Your task to perform on an android device: open a bookmark in the chrome app Image 0: 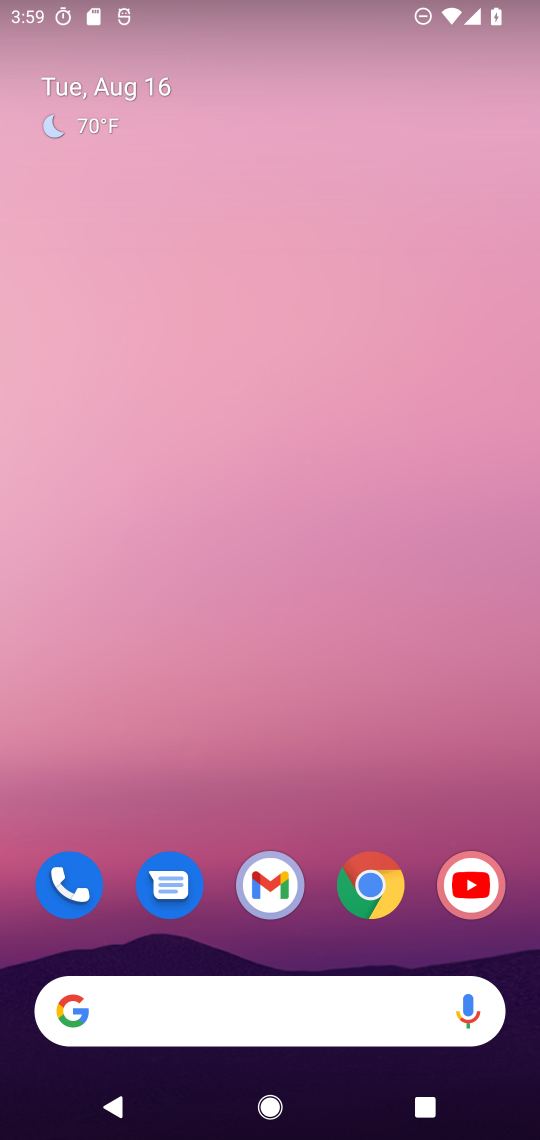
Step 0: drag from (209, 913) to (242, 411)
Your task to perform on an android device: open a bookmark in the chrome app Image 1: 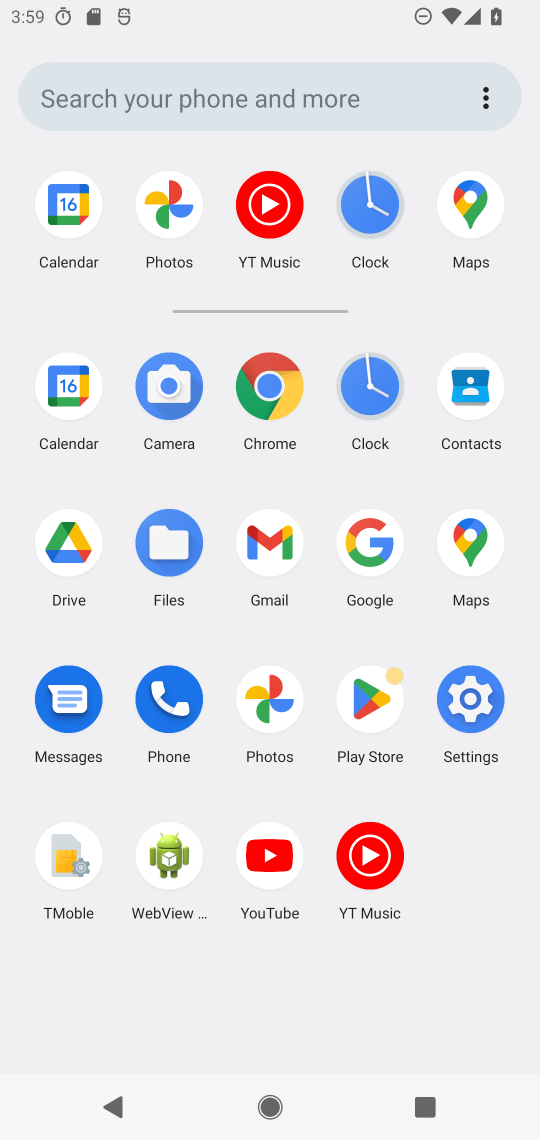
Step 1: click (260, 361)
Your task to perform on an android device: open a bookmark in the chrome app Image 2: 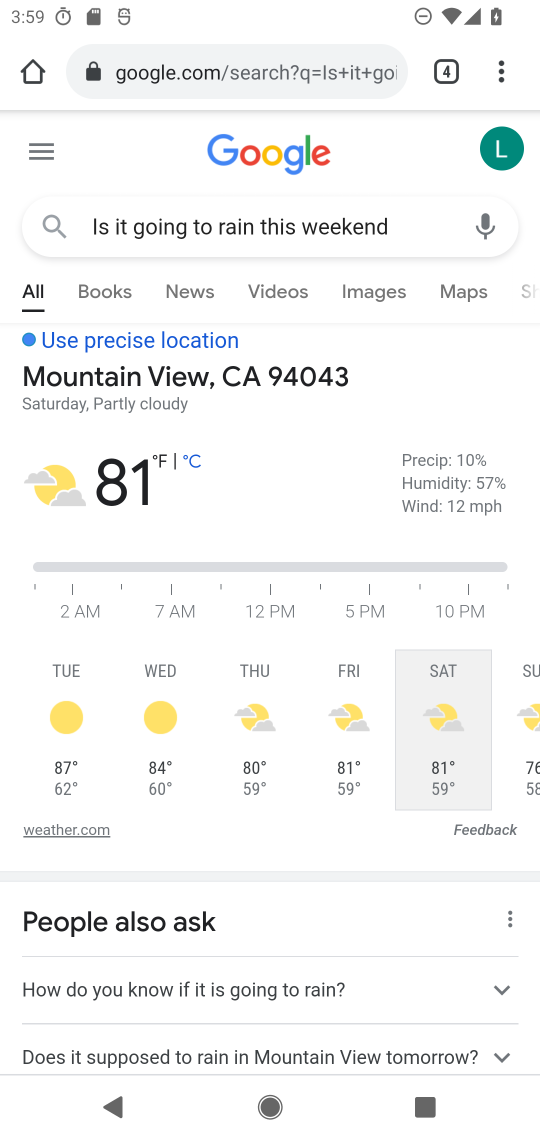
Step 2: click (521, 55)
Your task to perform on an android device: open a bookmark in the chrome app Image 3: 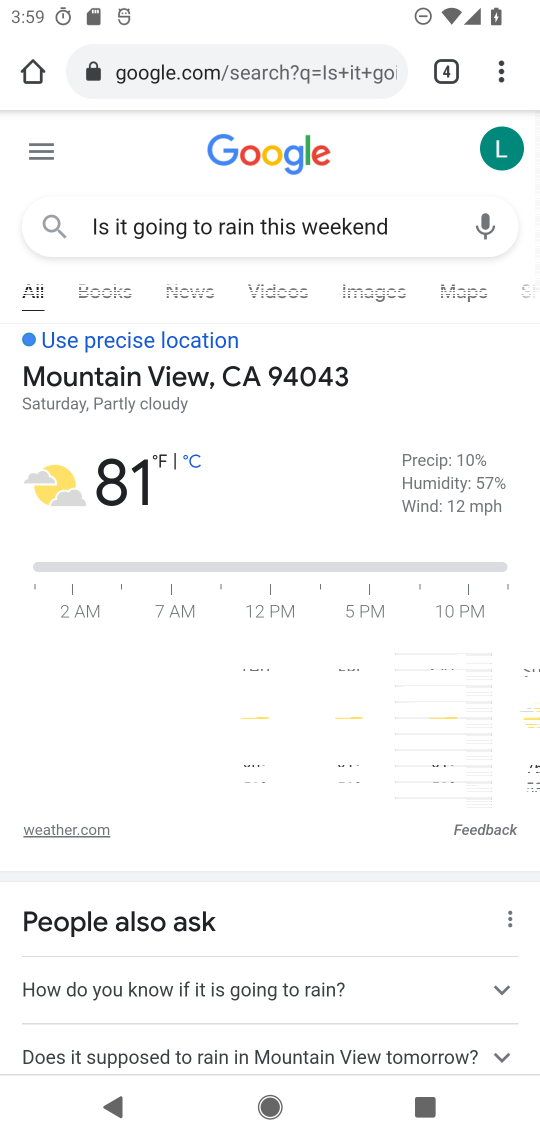
Step 3: click (512, 58)
Your task to perform on an android device: open a bookmark in the chrome app Image 4: 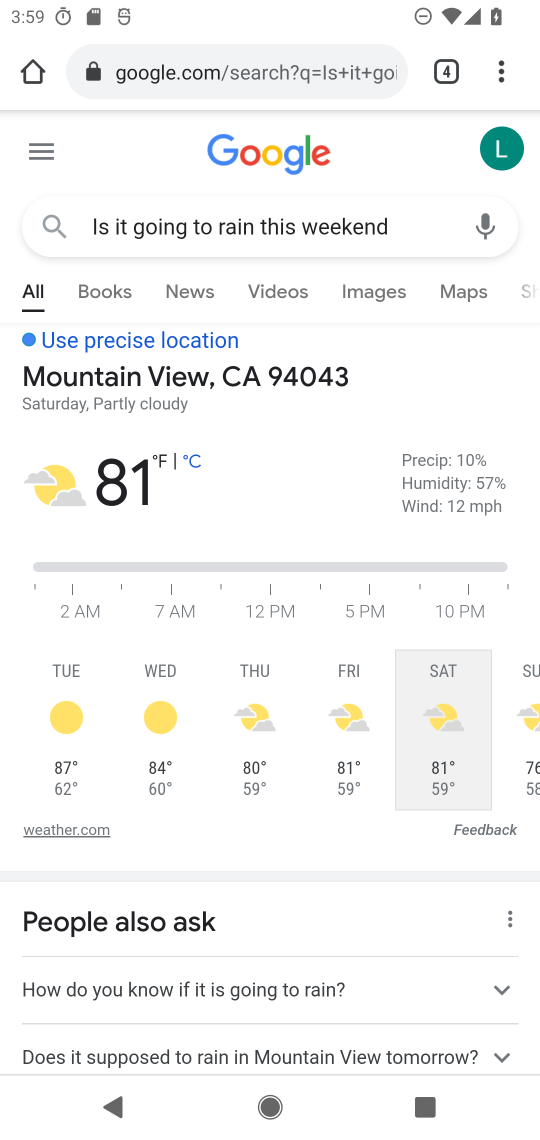
Step 4: click (510, 81)
Your task to perform on an android device: open a bookmark in the chrome app Image 5: 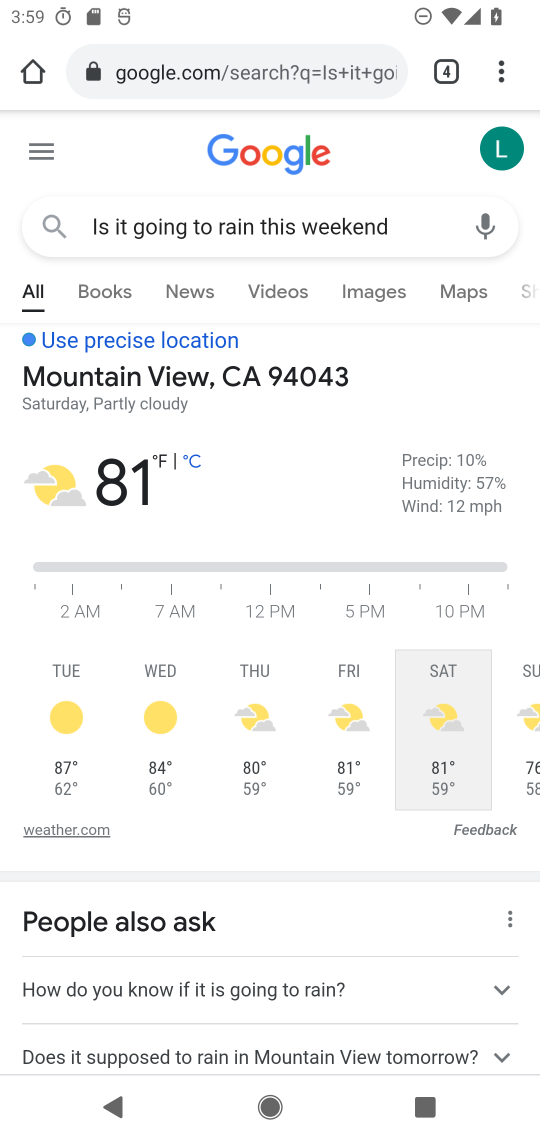
Step 5: click (497, 59)
Your task to perform on an android device: open a bookmark in the chrome app Image 6: 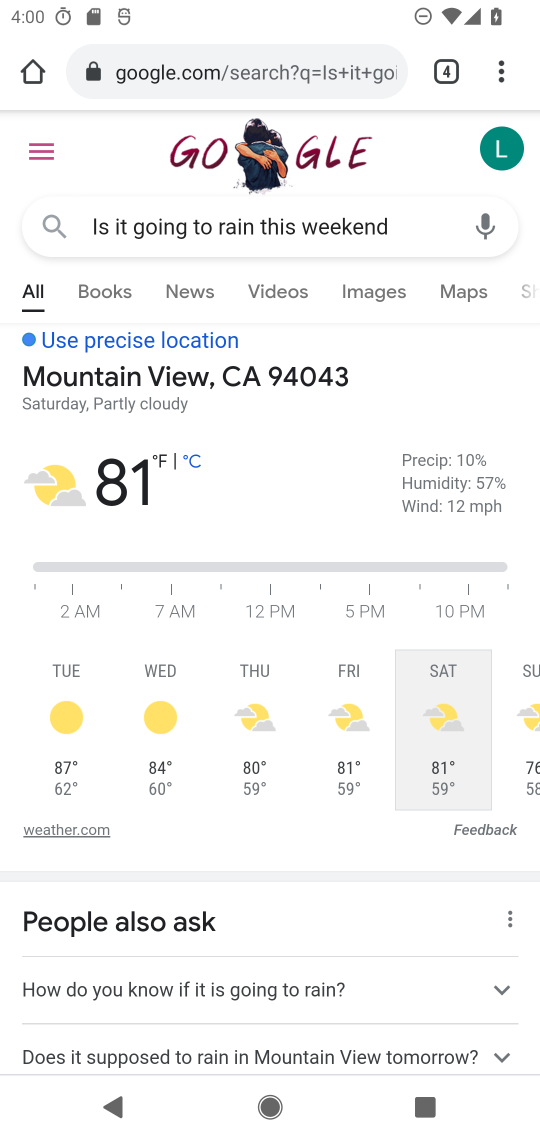
Step 6: click (509, 62)
Your task to perform on an android device: open a bookmark in the chrome app Image 7: 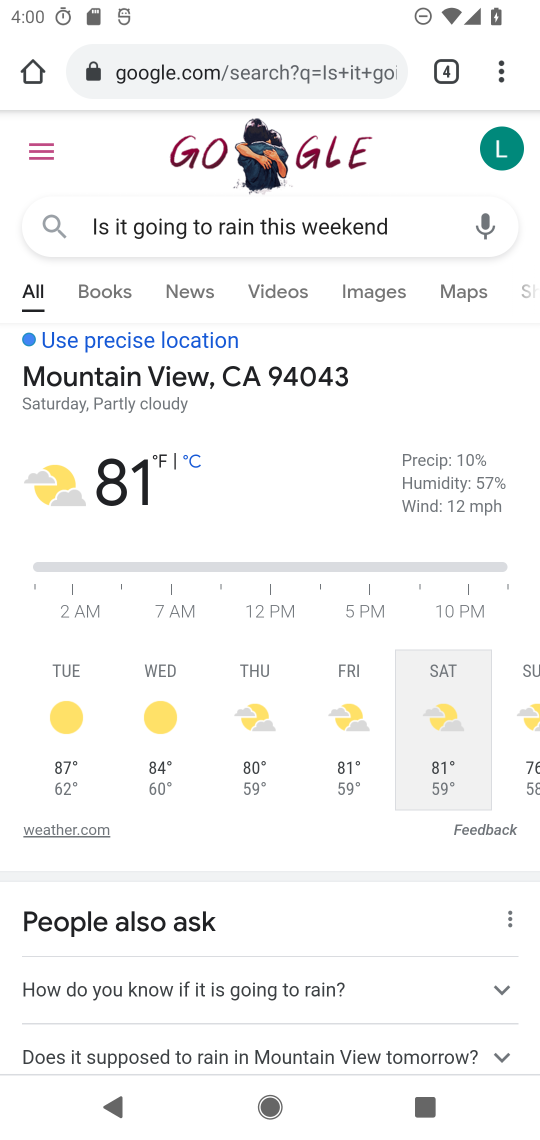
Step 7: click (499, 61)
Your task to perform on an android device: open a bookmark in the chrome app Image 8: 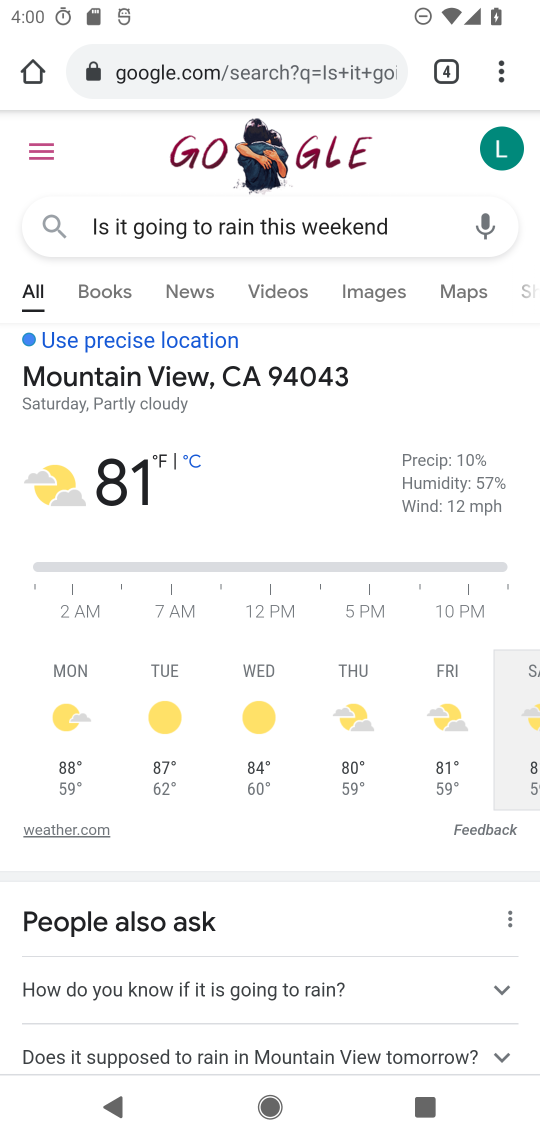
Step 8: click (499, 61)
Your task to perform on an android device: open a bookmark in the chrome app Image 9: 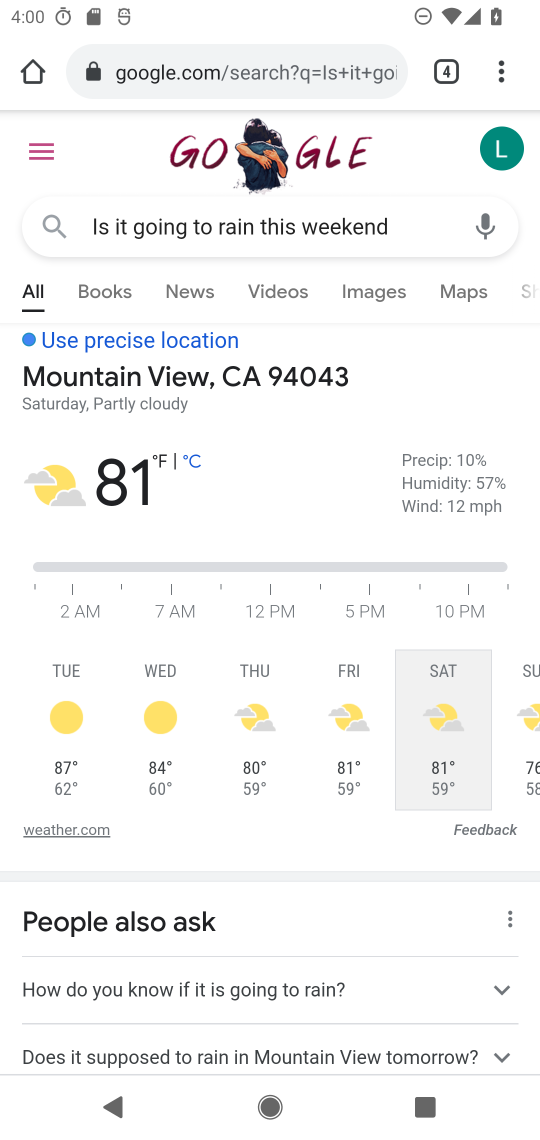
Step 9: click (499, 63)
Your task to perform on an android device: open a bookmark in the chrome app Image 10: 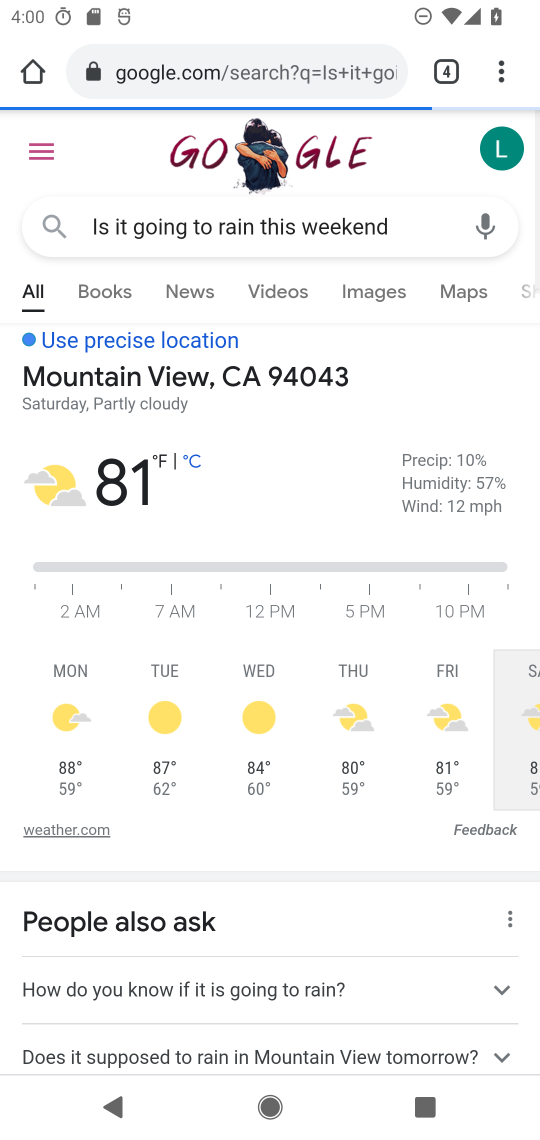
Step 10: click (499, 63)
Your task to perform on an android device: open a bookmark in the chrome app Image 11: 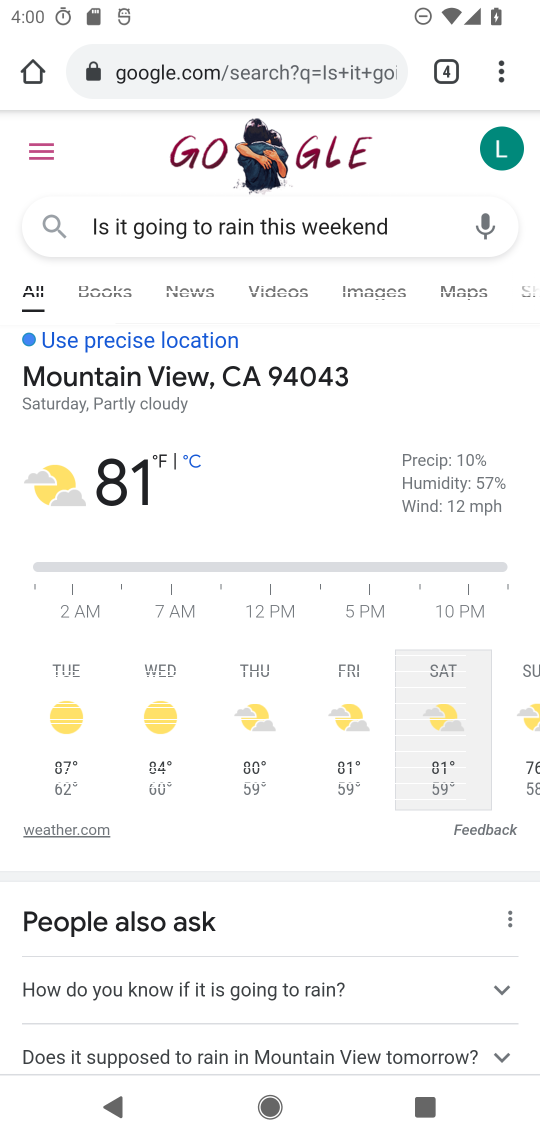
Step 11: click (499, 63)
Your task to perform on an android device: open a bookmark in the chrome app Image 12: 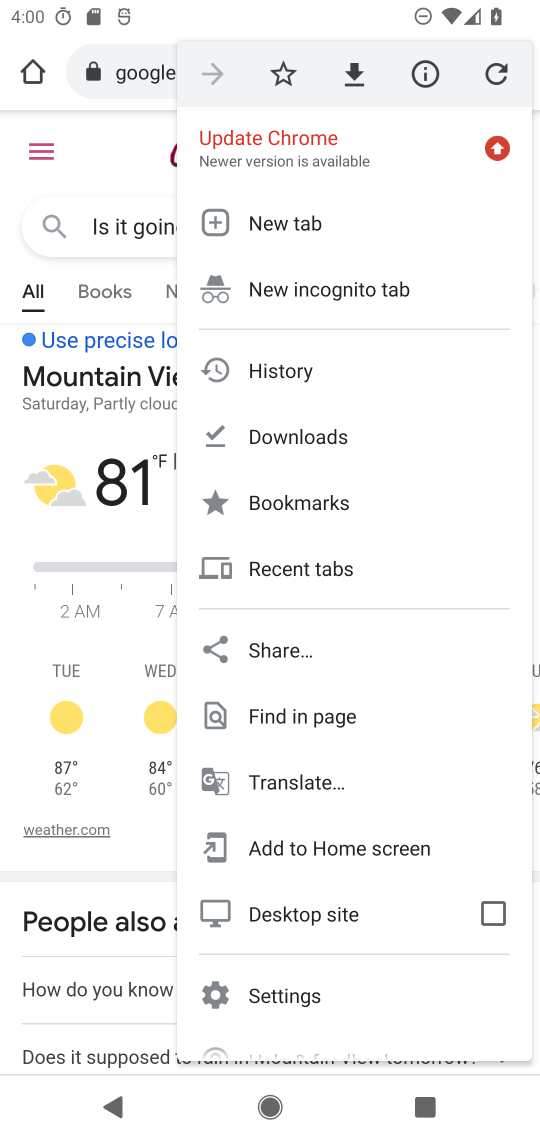
Step 12: click (297, 496)
Your task to perform on an android device: open a bookmark in the chrome app Image 13: 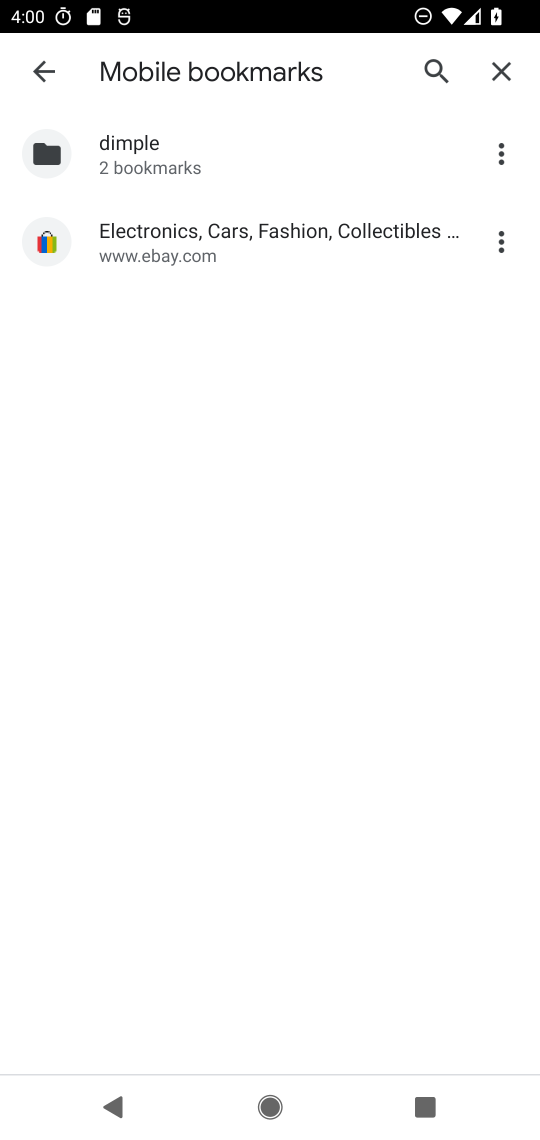
Step 13: click (170, 219)
Your task to perform on an android device: open a bookmark in the chrome app Image 14: 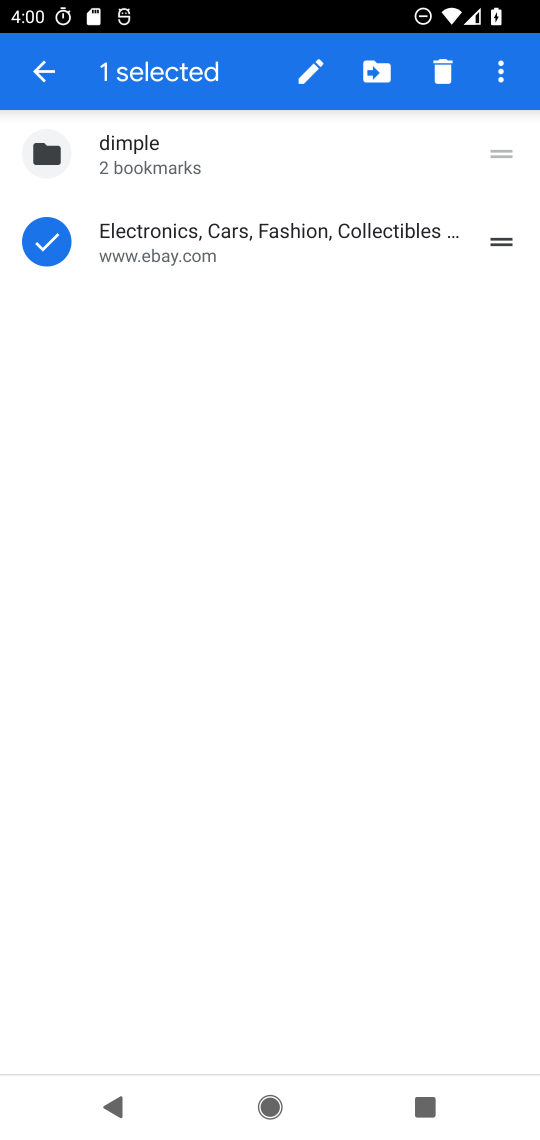
Step 14: click (376, 68)
Your task to perform on an android device: open a bookmark in the chrome app Image 15: 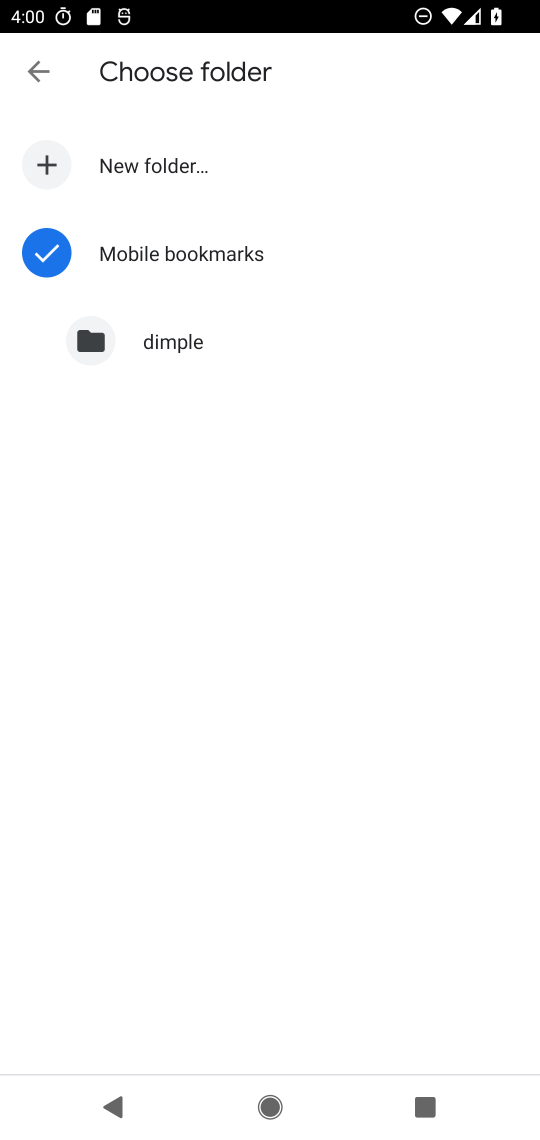
Step 15: click (182, 326)
Your task to perform on an android device: open a bookmark in the chrome app Image 16: 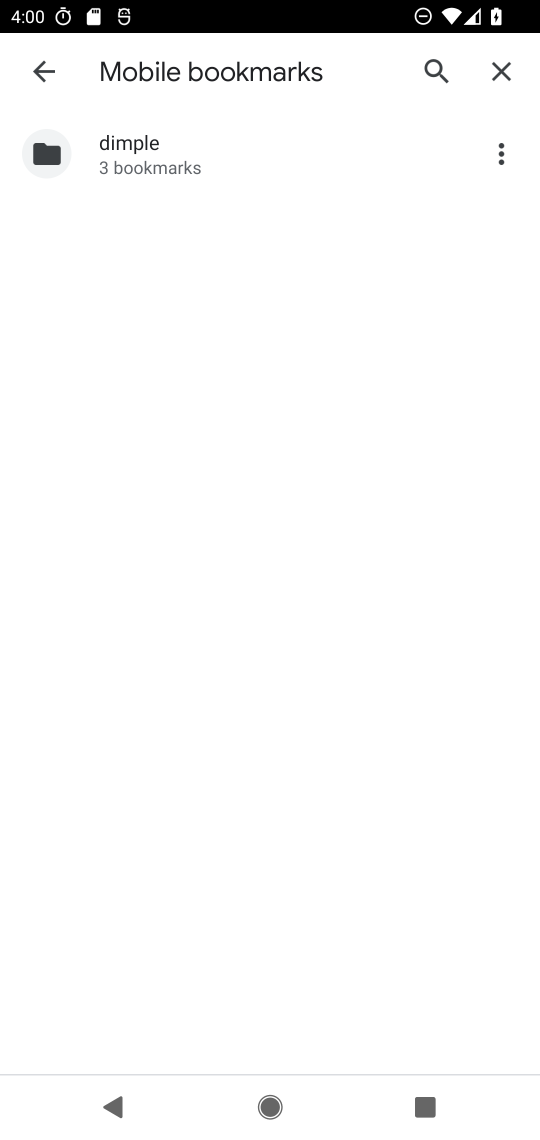
Step 16: task complete